Your task to perform on an android device: star an email in the gmail app Image 0: 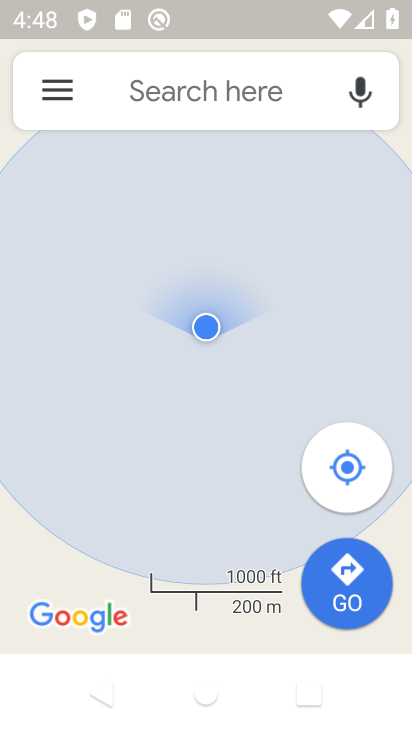
Step 0: press home button
Your task to perform on an android device: star an email in the gmail app Image 1: 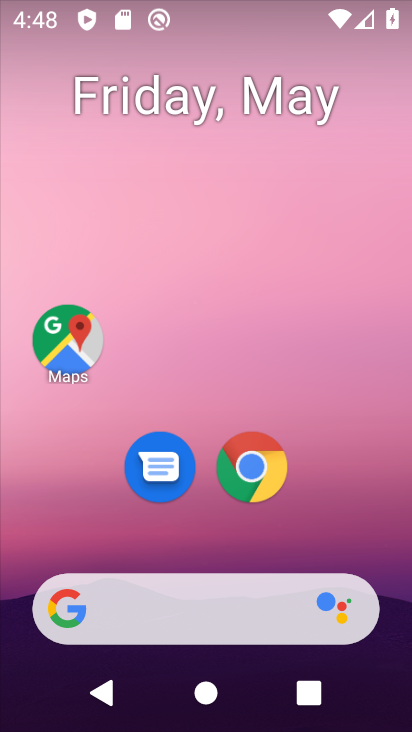
Step 1: drag from (308, 459) to (319, 70)
Your task to perform on an android device: star an email in the gmail app Image 2: 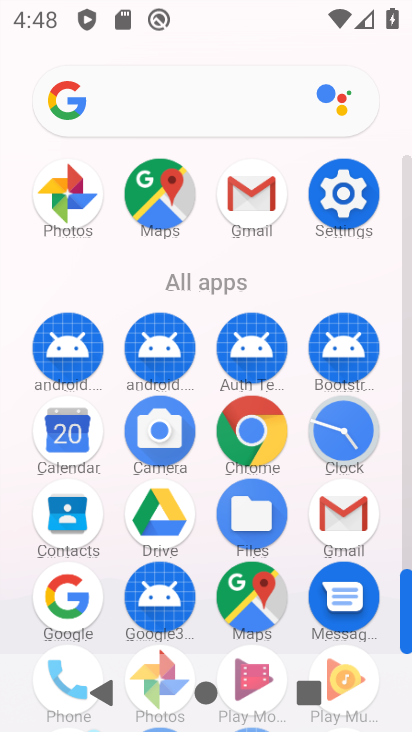
Step 2: click (268, 182)
Your task to perform on an android device: star an email in the gmail app Image 3: 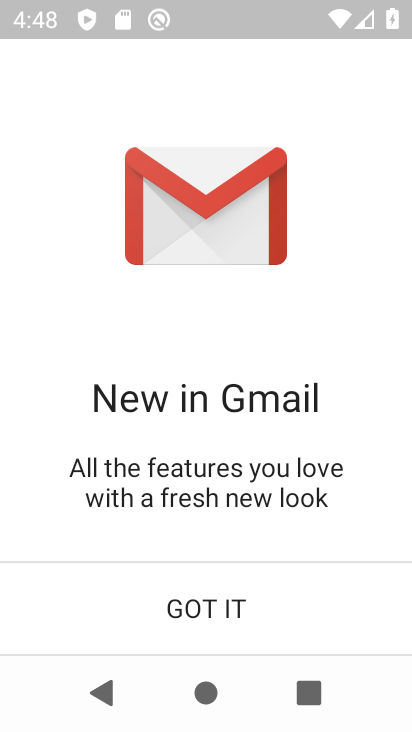
Step 3: click (221, 616)
Your task to perform on an android device: star an email in the gmail app Image 4: 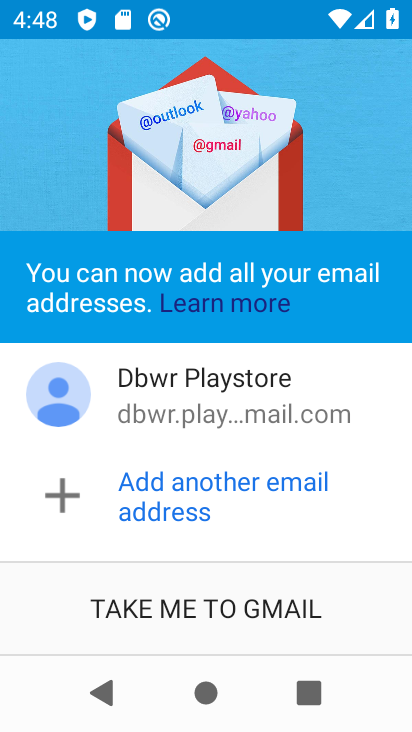
Step 4: click (212, 624)
Your task to perform on an android device: star an email in the gmail app Image 5: 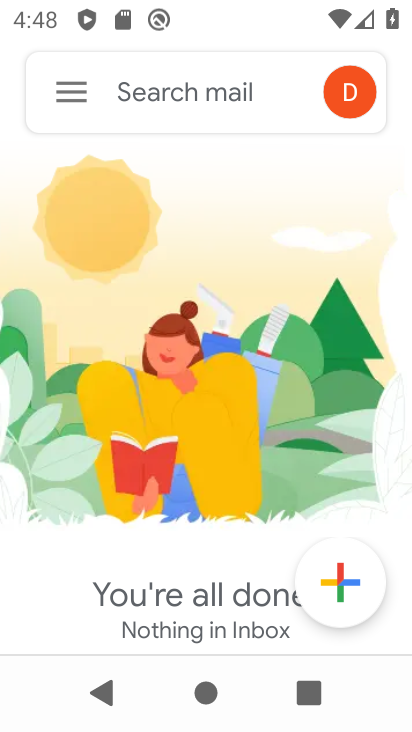
Step 5: click (57, 86)
Your task to perform on an android device: star an email in the gmail app Image 6: 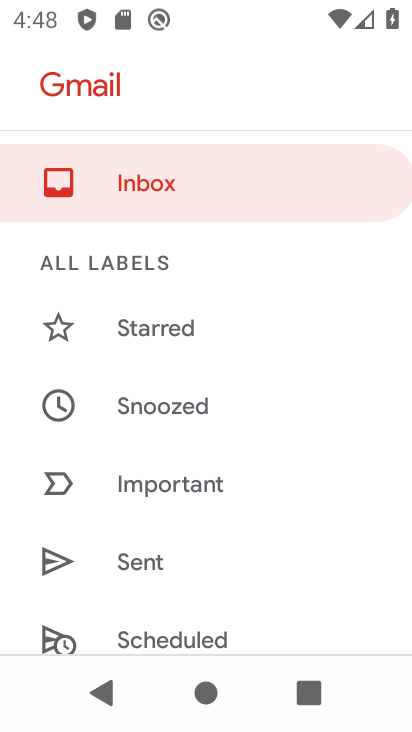
Step 6: drag from (185, 472) to (229, 162)
Your task to perform on an android device: star an email in the gmail app Image 7: 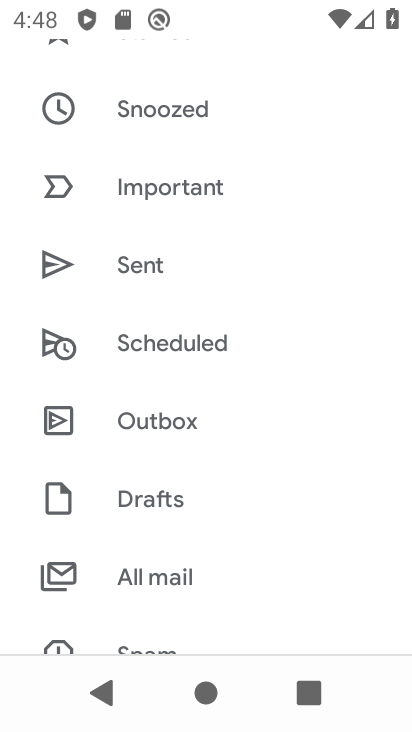
Step 7: drag from (168, 496) to (212, 319)
Your task to perform on an android device: star an email in the gmail app Image 8: 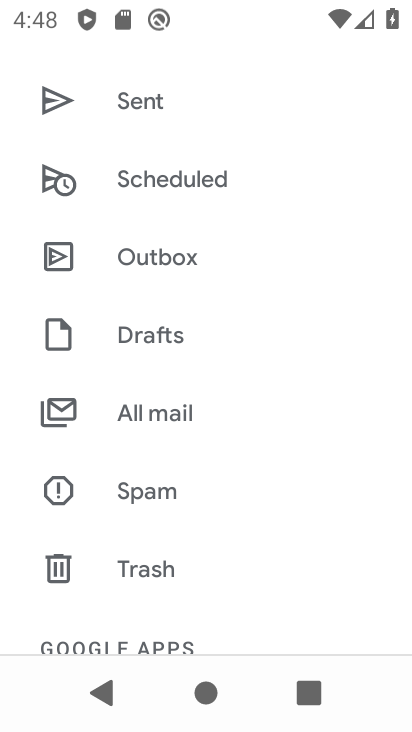
Step 8: click (169, 407)
Your task to perform on an android device: star an email in the gmail app Image 9: 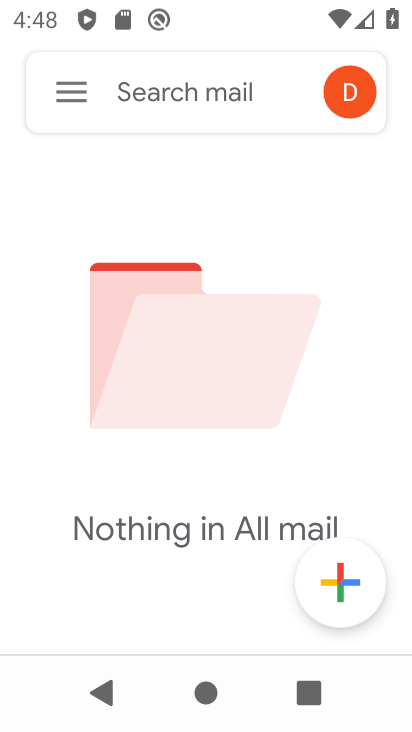
Step 9: task complete